Your task to perform on an android device: change alarm snooze length Image 0: 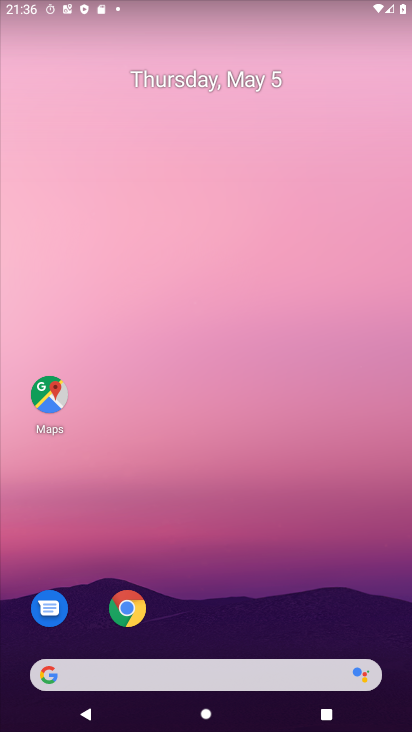
Step 0: drag from (342, 644) to (252, 2)
Your task to perform on an android device: change alarm snooze length Image 1: 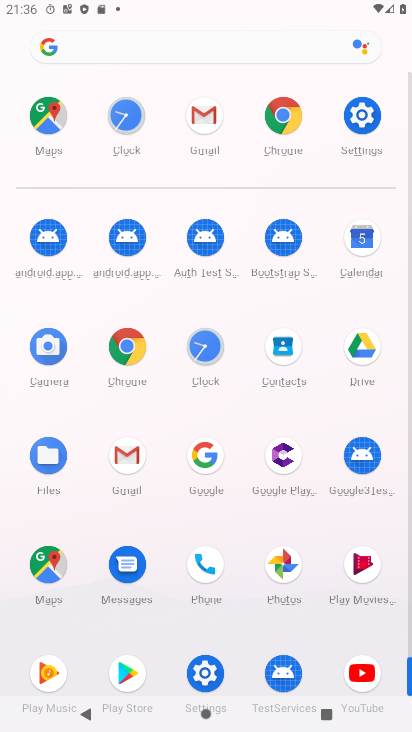
Step 1: click (358, 108)
Your task to perform on an android device: change alarm snooze length Image 2: 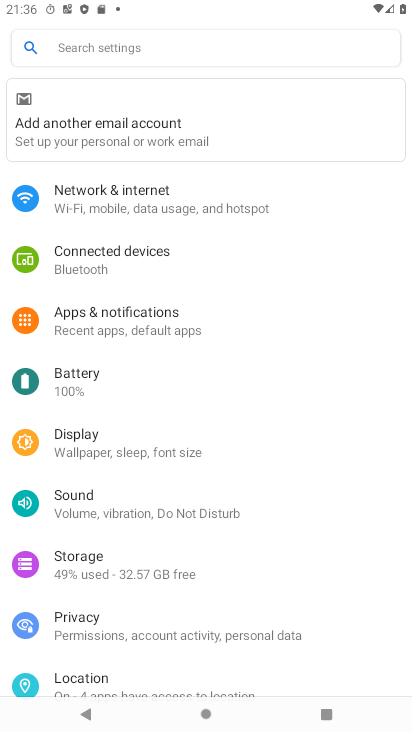
Step 2: press home button
Your task to perform on an android device: change alarm snooze length Image 3: 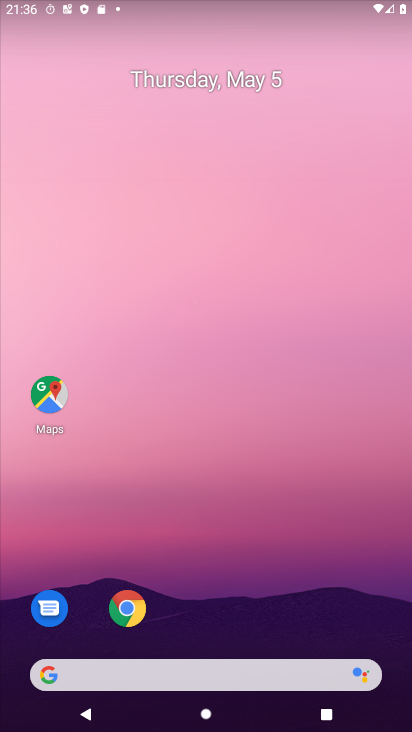
Step 3: drag from (302, 668) to (271, 18)
Your task to perform on an android device: change alarm snooze length Image 4: 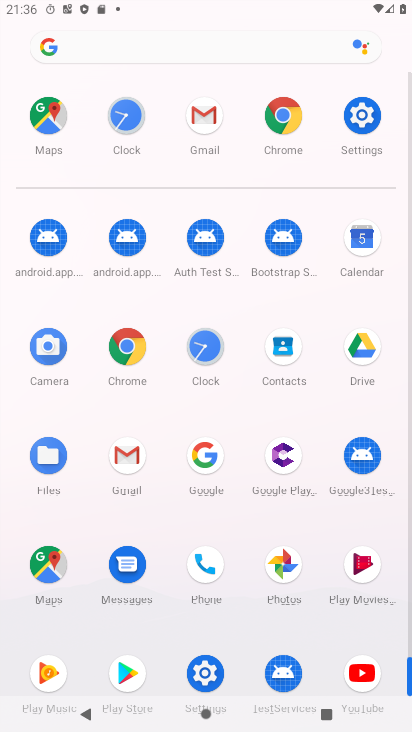
Step 4: click (195, 351)
Your task to perform on an android device: change alarm snooze length Image 5: 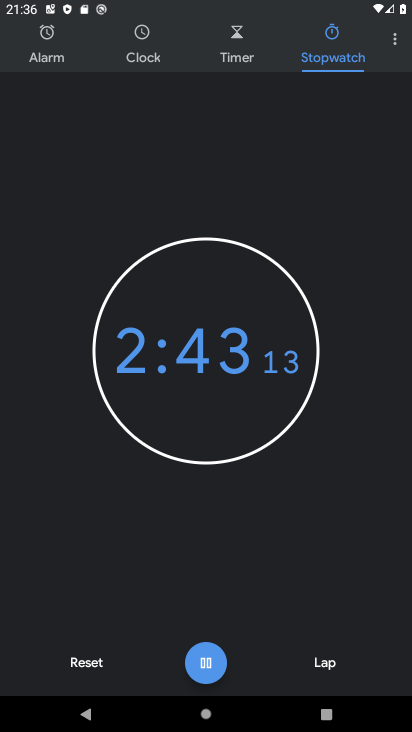
Step 5: click (66, 51)
Your task to perform on an android device: change alarm snooze length Image 6: 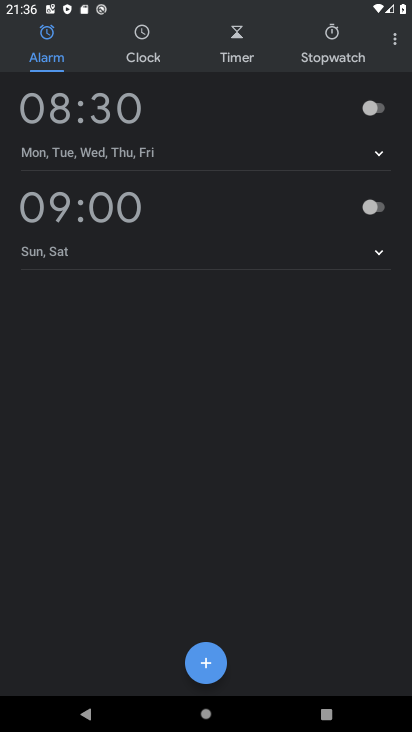
Step 6: click (393, 38)
Your task to perform on an android device: change alarm snooze length Image 7: 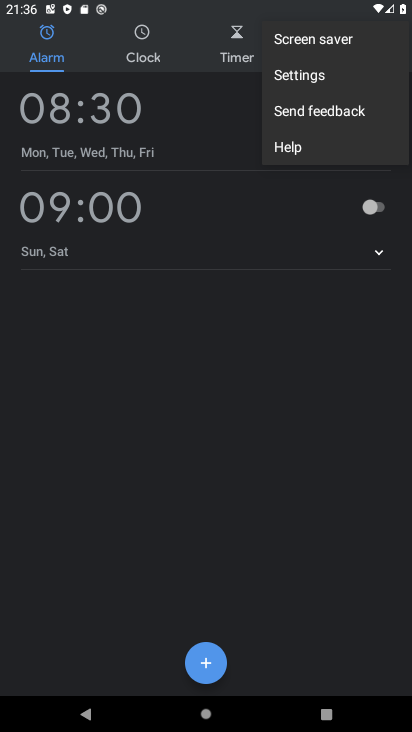
Step 7: click (333, 80)
Your task to perform on an android device: change alarm snooze length Image 8: 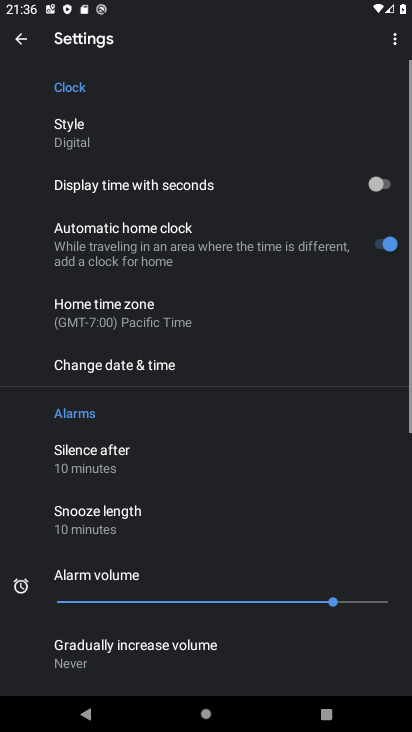
Step 8: drag from (196, 525) to (168, 128)
Your task to perform on an android device: change alarm snooze length Image 9: 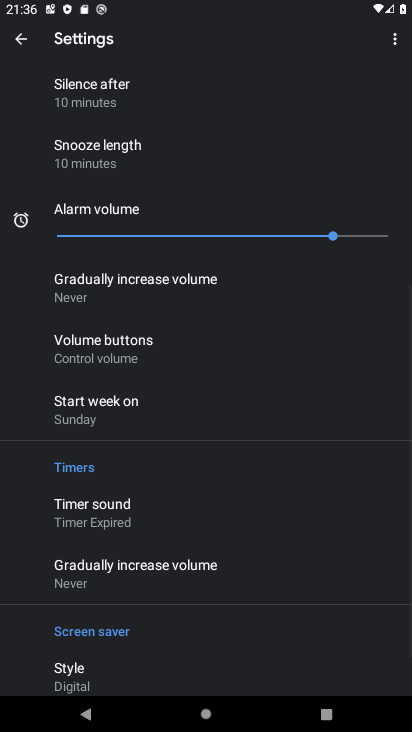
Step 9: drag from (176, 132) to (237, 454)
Your task to perform on an android device: change alarm snooze length Image 10: 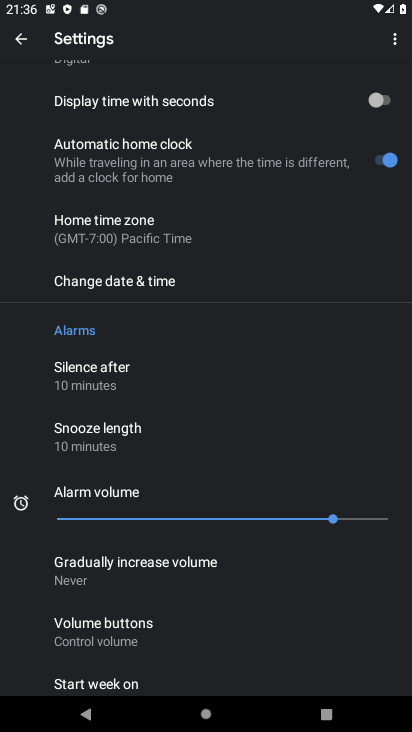
Step 10: click (149, 439)
Your task to perform on an android device: change alarm snooze length Image 11: 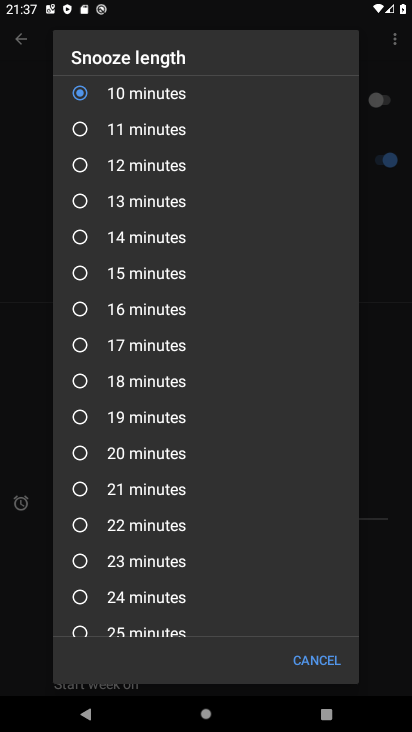
Step 11: click (161, 134)
Your task to perform on an android device: change alarm snooze length Image 12: 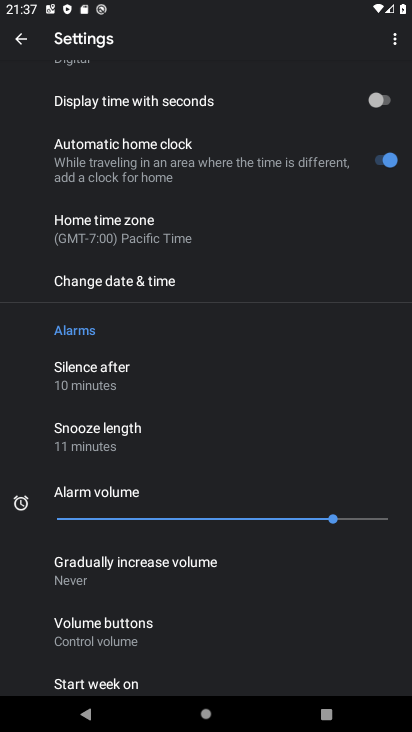
Step 12: task complete